Your task to perform on an android device: Search for Mexican restaurants on Maps Image 0: 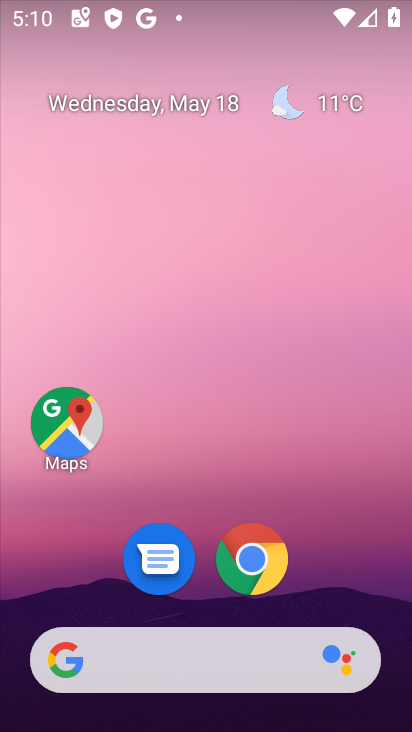
Step 0: click (71, 418)
Your task to perform on an android device: Search for Mexican restaurants on Maps Image 1: 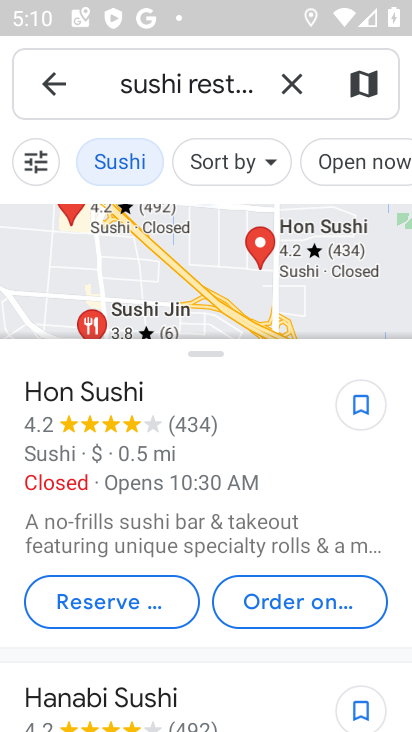
Step 1: click (271, 111)
Your task to perform on an android device: Search for Mexican restaurants on Maps Image 2: 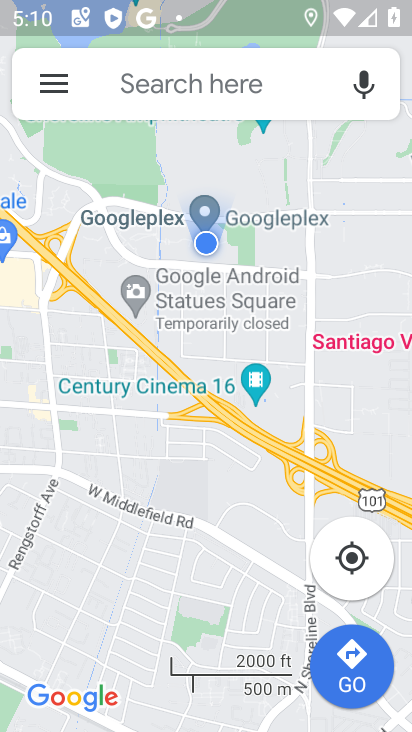
Step 2: click (170, 90)
Your task to perform on an android device: Search for Mexican restaurants on Maps Image 3: 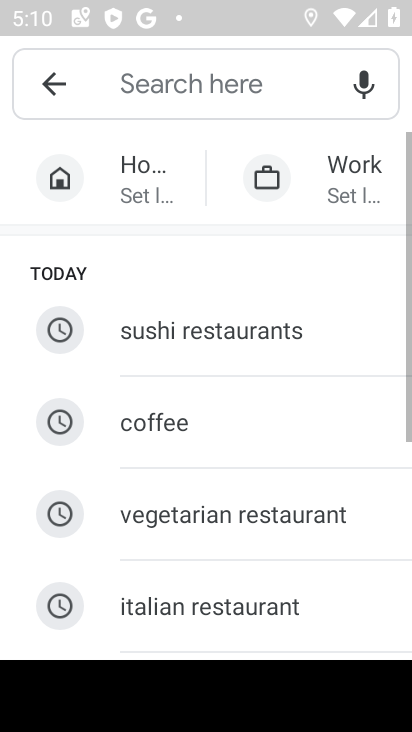
Step 3: drag from (193, 582) to (249, 178)
Your task to perform on an android device: Search for Mexican restaurants on Maps Image 4: 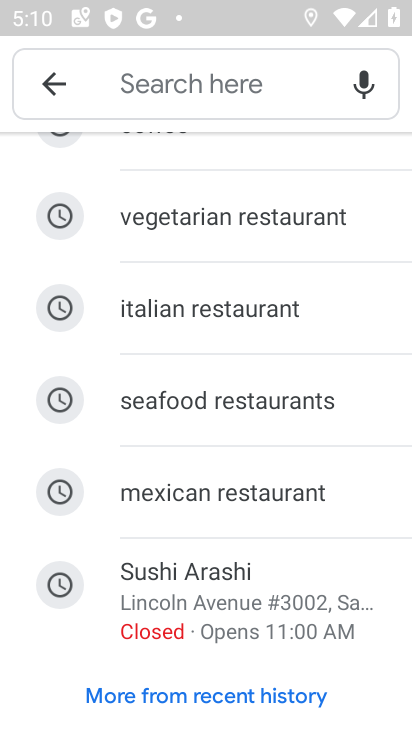
Step 4: click (165, 489)
Your task to perform on an android device: Search for Mexican restaurants on Maps Image 5: 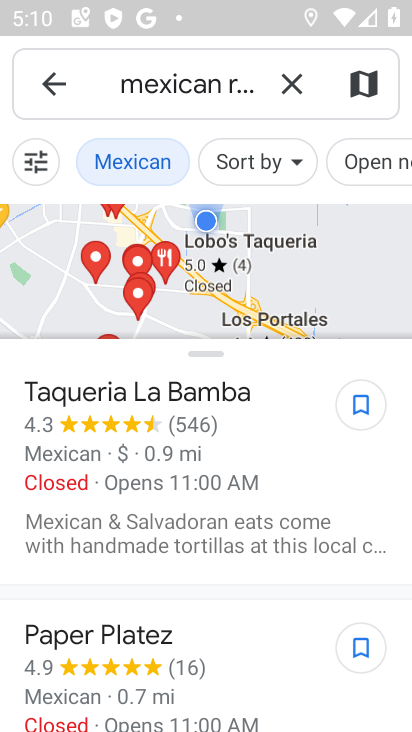
Step 5: task complete